Your task to perform on an android device: empty trash in the gmail app Image 0: 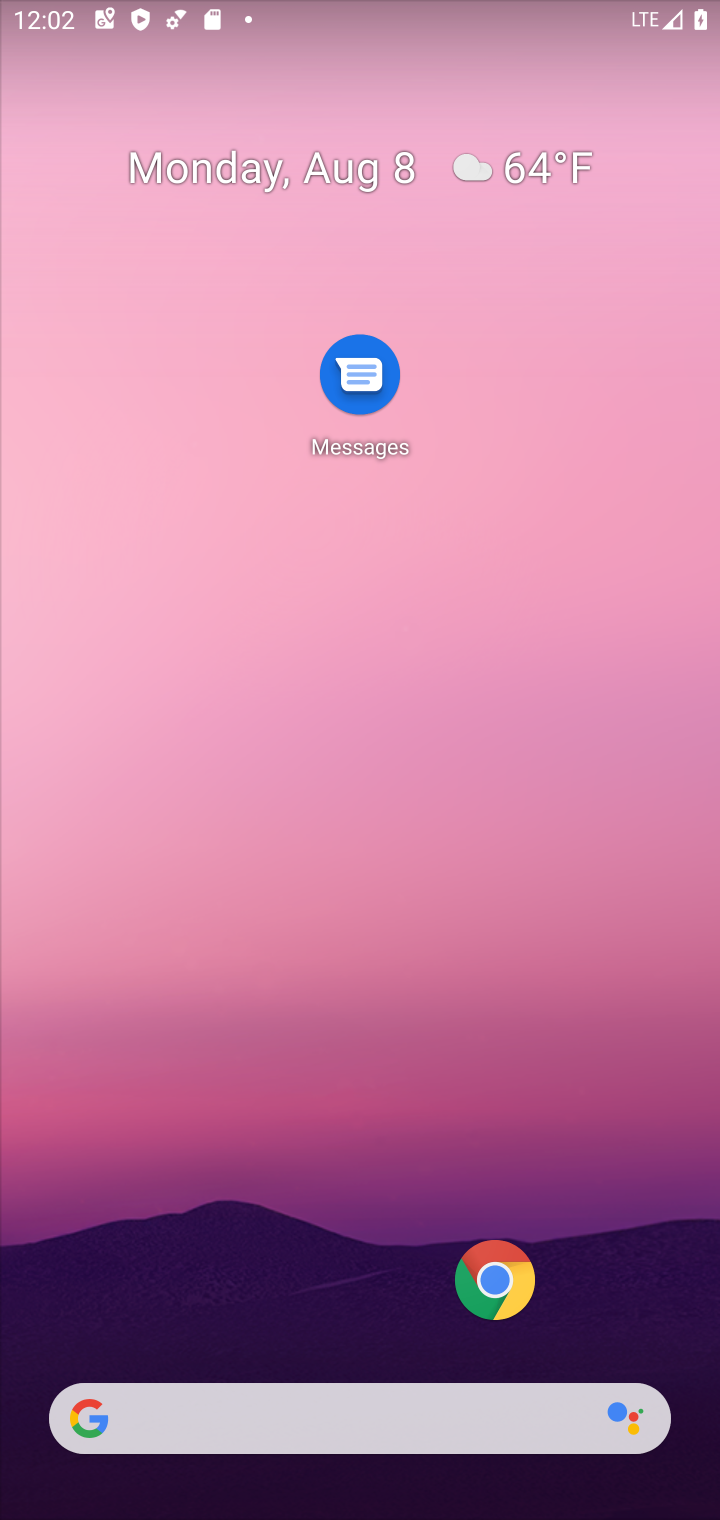
Step 0: drag from (281, 958) to (281, 147)
Your task to perform on an android device: empty trash in the gmail app Image 1: 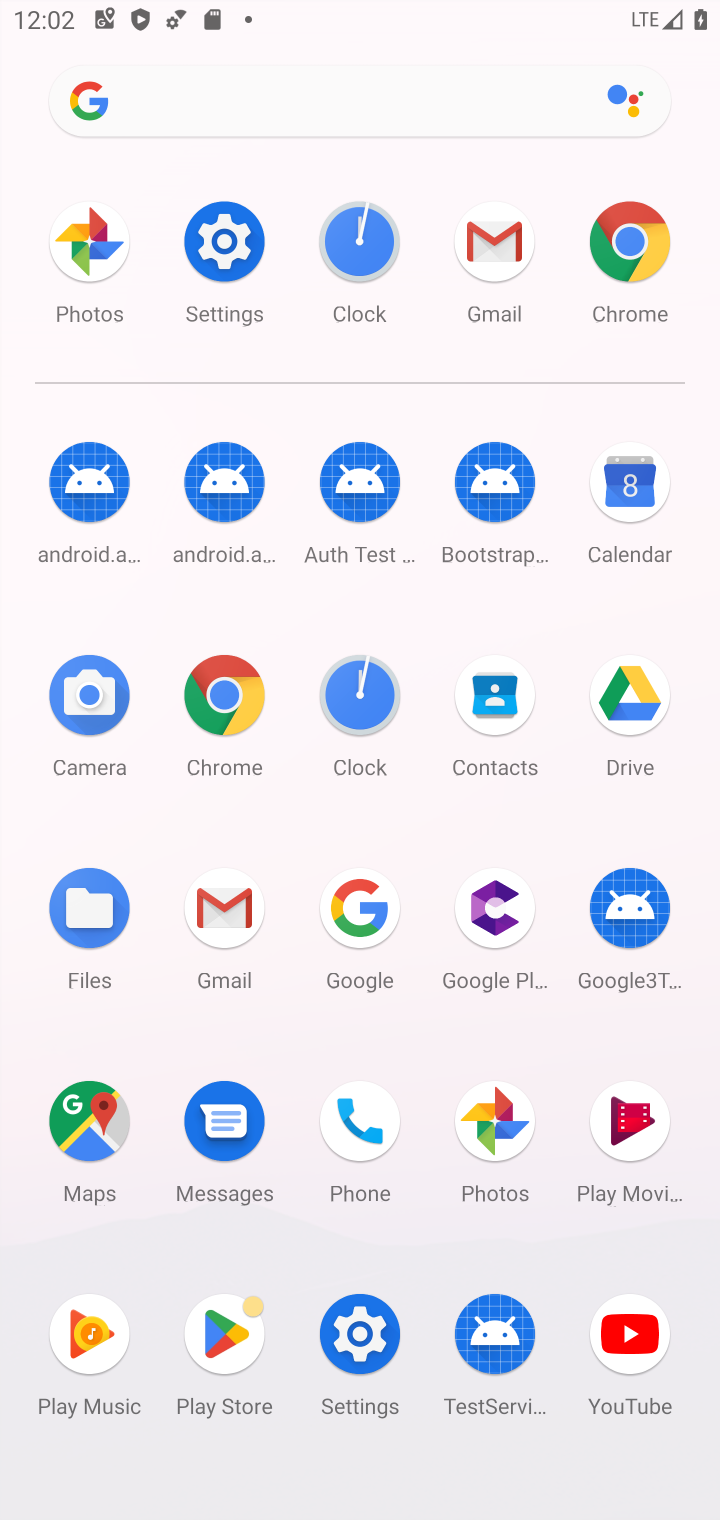
Step 1: click (479, 240)
Your task to perform on an android device: empty trash in the gmail app Image 2: 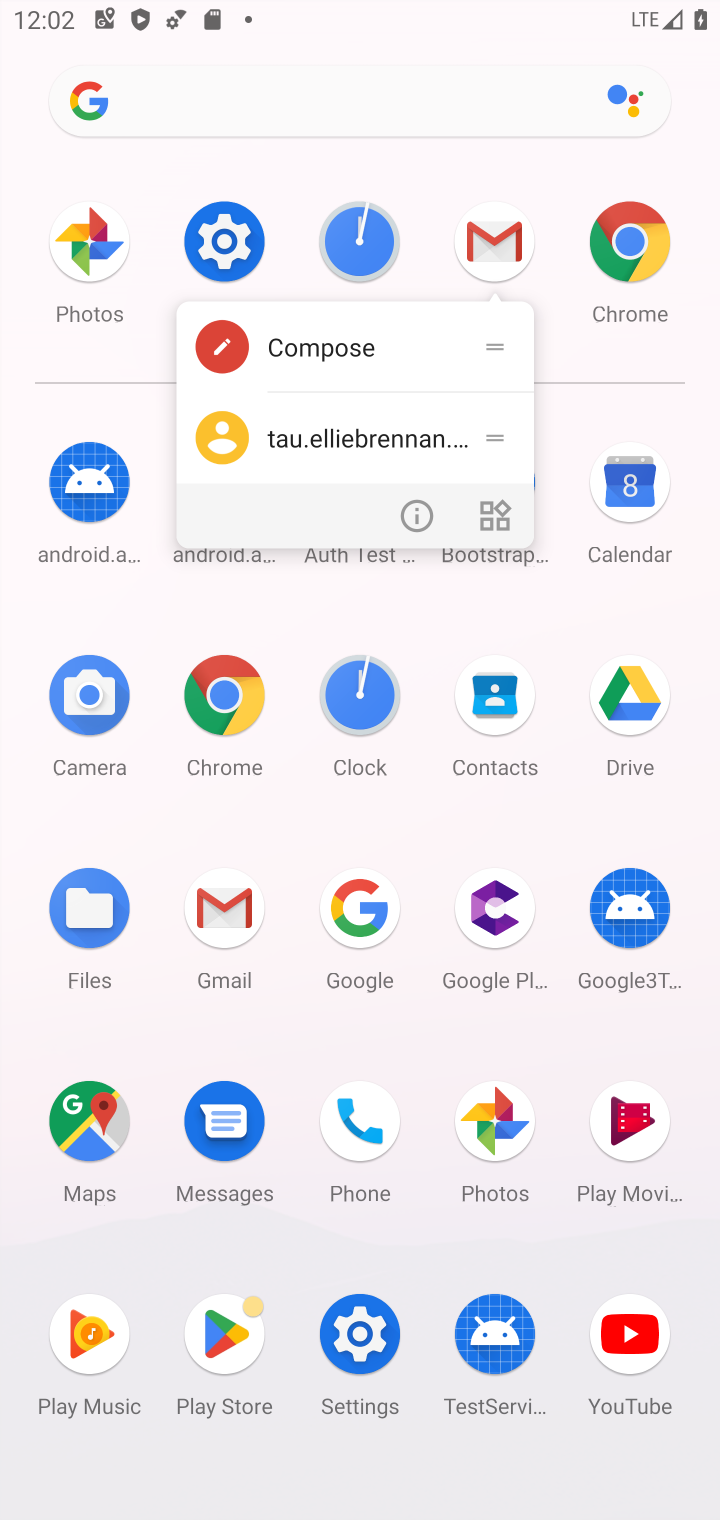
Step 2: click (527, 242)
Your task to perform on an android device: empty trash in the gmail app Image 3: 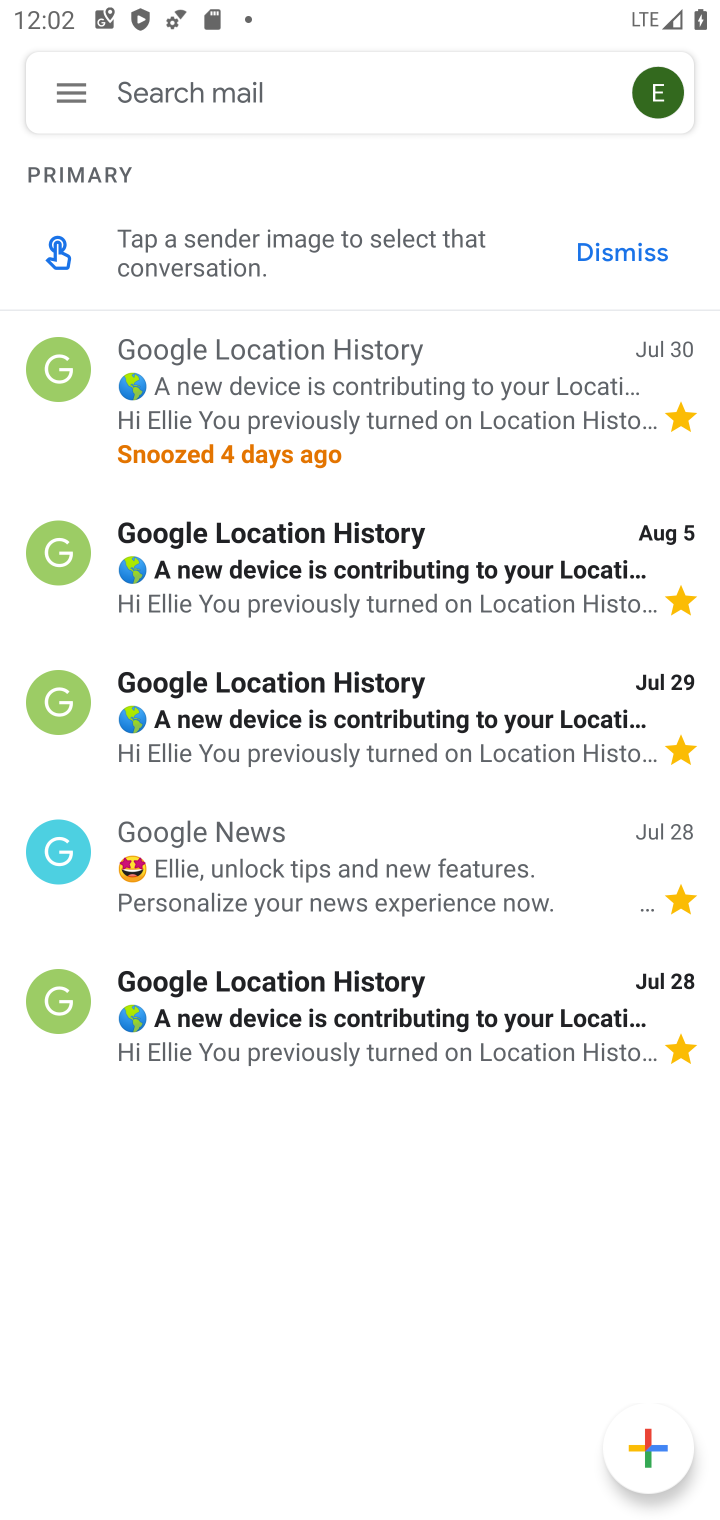
Step 3: click (72, 83)
Your task to perform on an android device: empty trash in the gmail app Image 4: 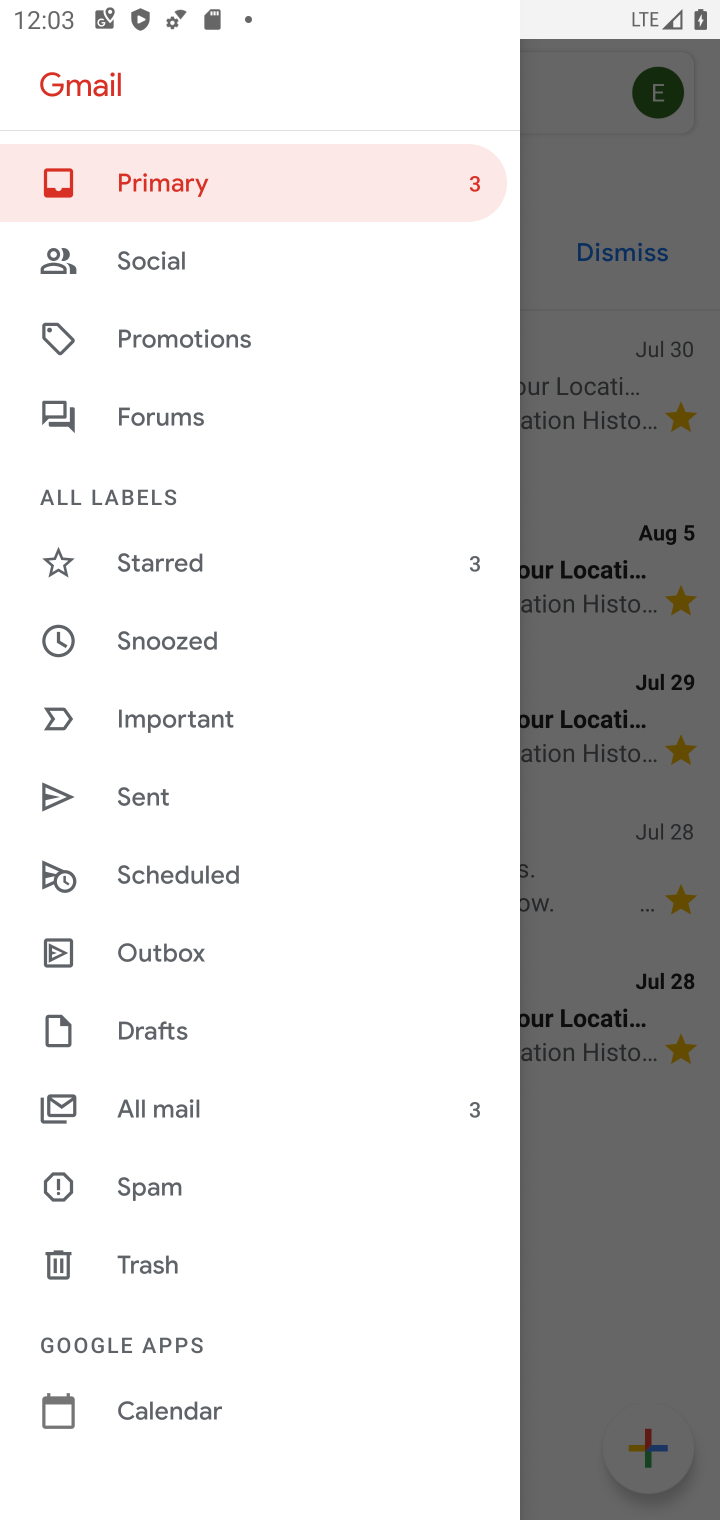
Step 4: click (189, 1250)
Your task to perform on an android device: empty trash in the gmail app Image 5: 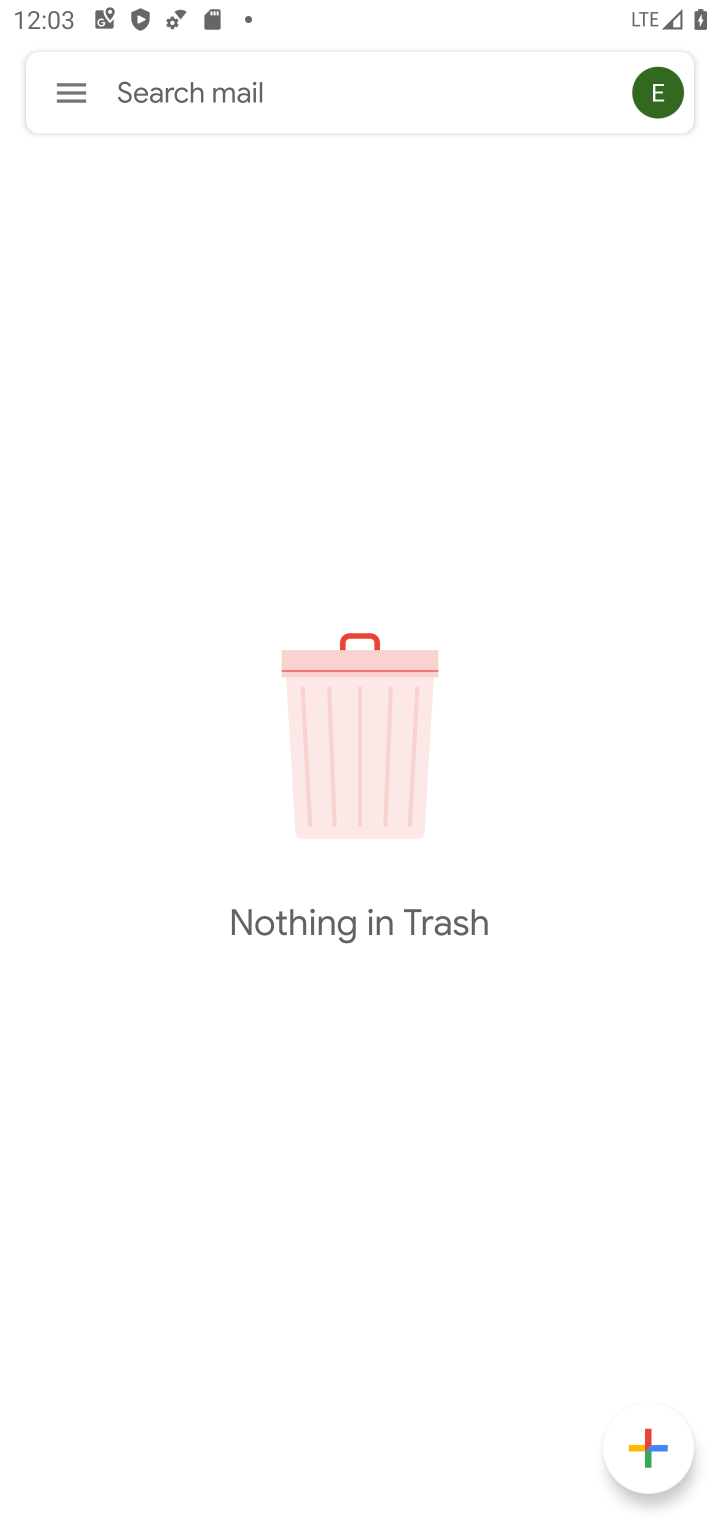
Step 5: task complete